Your task to perform on an android device: Find coffee shops on Maps Image 0: 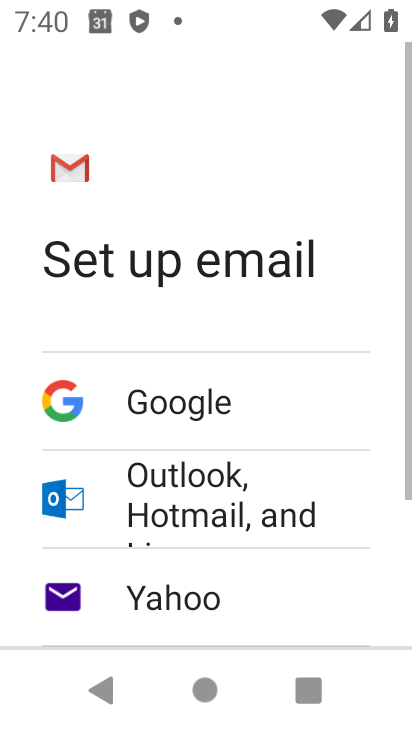
Step 0: press home button
Your task to perform on an android device: Find coffee shops on Maps Image 1: 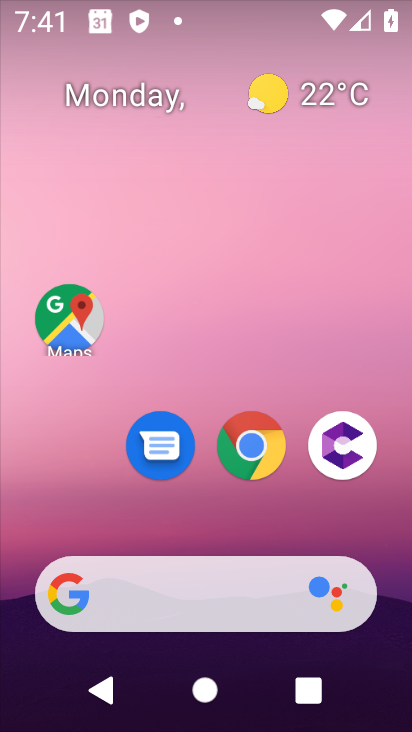
Step 1: click (81, 326)
Your task to perform on an android device: Find coffee shops on Maps Image 2: 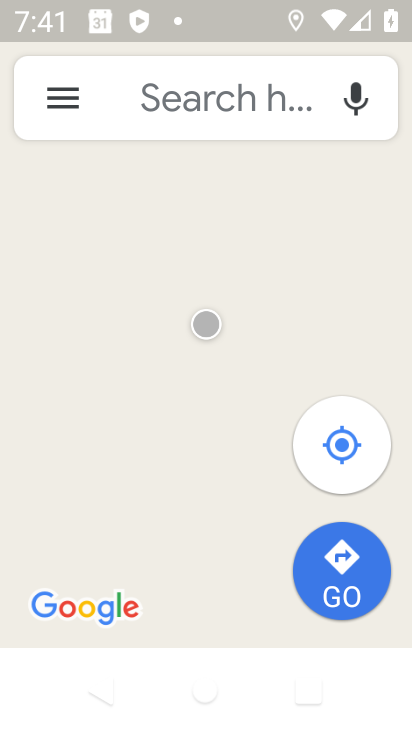
Step 2: click (161, 105)
Your task to perform on an android device: Find coffee shops on Maps Image 3: 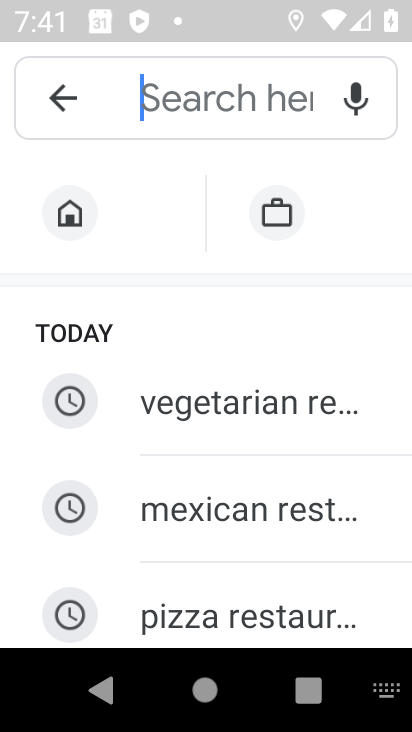
Step 3: type "coffee shops"
Your task to perform on an android device: Find coffee shops on Maps Image 4: 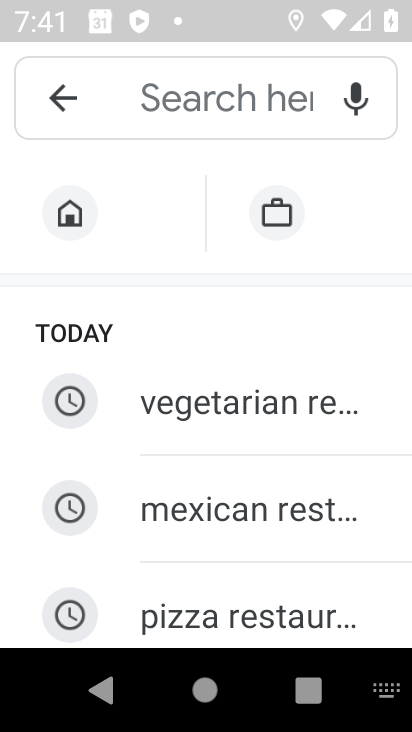
Step 4: click (178, 91)
Your task to perform on an android device: Find coffee shops on Maps Image 5: 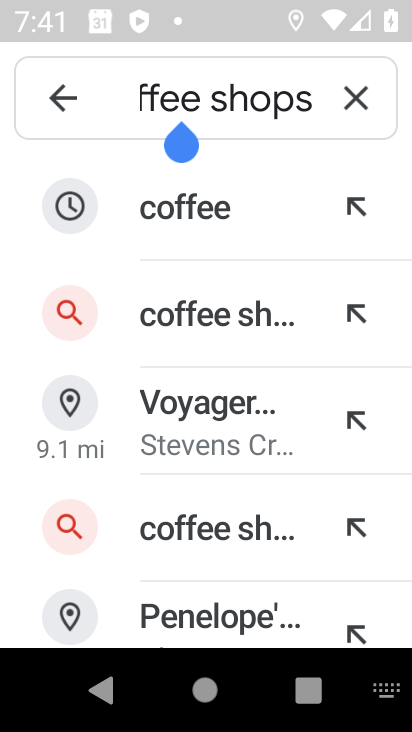
Step 5: click (81, 288)
Your task to perform on an android device: Find coffee shops on Maps Image 6: 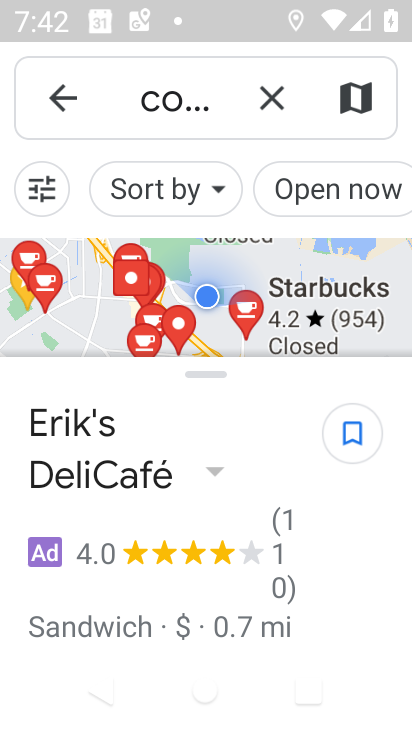
Step 6: task complete